Your task to perform on an android device: turn pop-ups on in chrome Image 0: 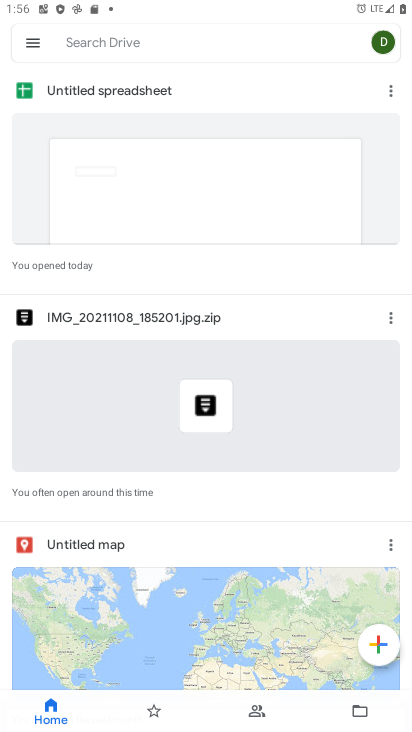
Step 0: press home button
Your task to perform on an android device: turn pop-ups on in chrome Image 1: 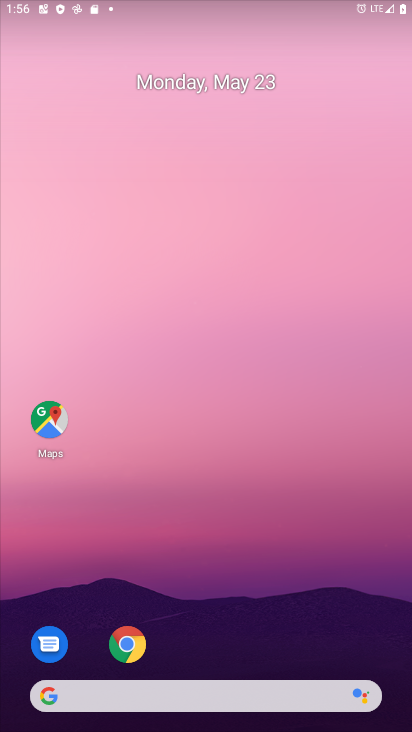
Step 1: drag from (307, 621) to (255, 135)
Your task to perform on an android device: turn pop-ups on in chrome Image 2: 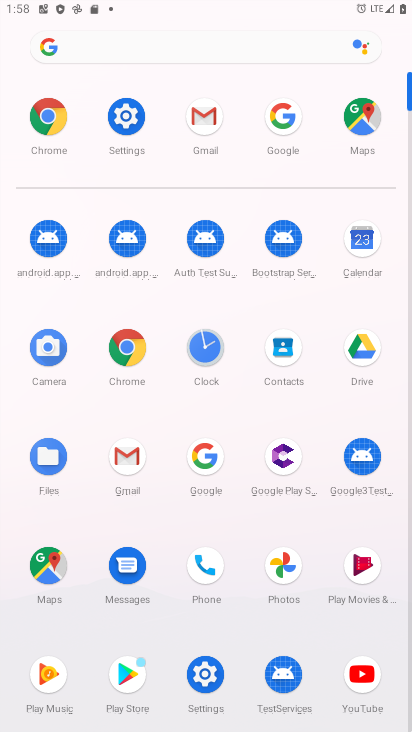
Step 2: click (31, 121)
Your task to perform on an android device: turn pop-ups on in chrome Image 3: 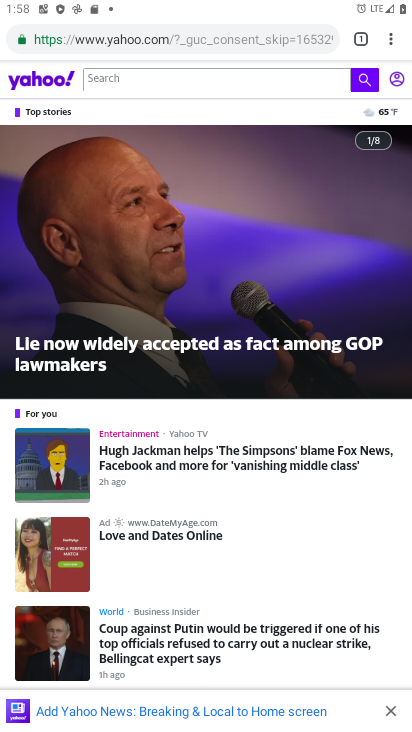
Step 3: press back button
Your task to perform on an android device: turn pop-ups on in chrome Image 4: 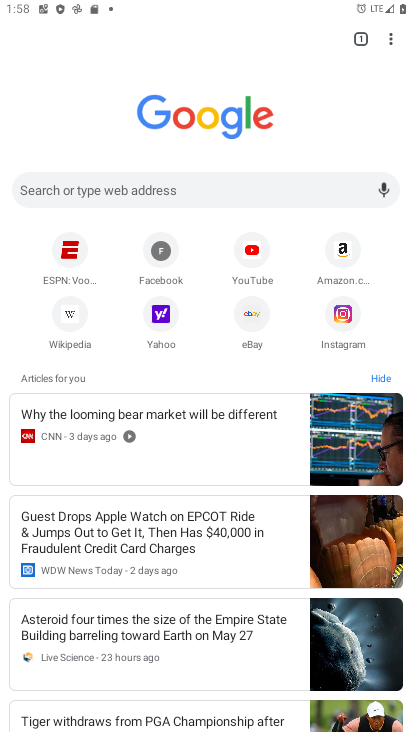
Step 4: click (389, 39)
Your task to perform on an android device: turn pop-ups on in chrome Image 5: 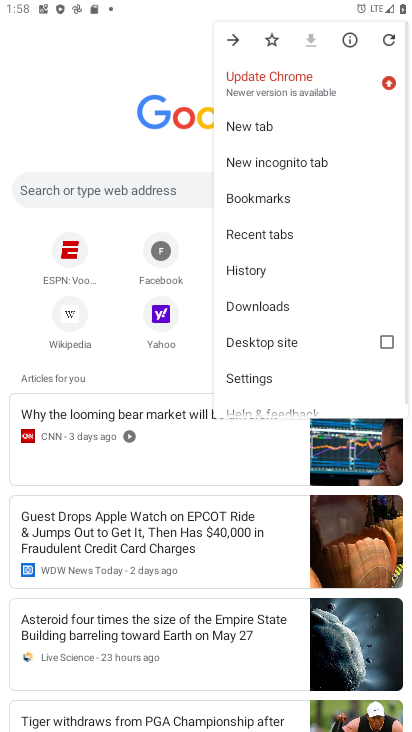
Step 5: click (318, 380)
Your task to perform on an android device: turn pop-ups on in chrome Image 6: 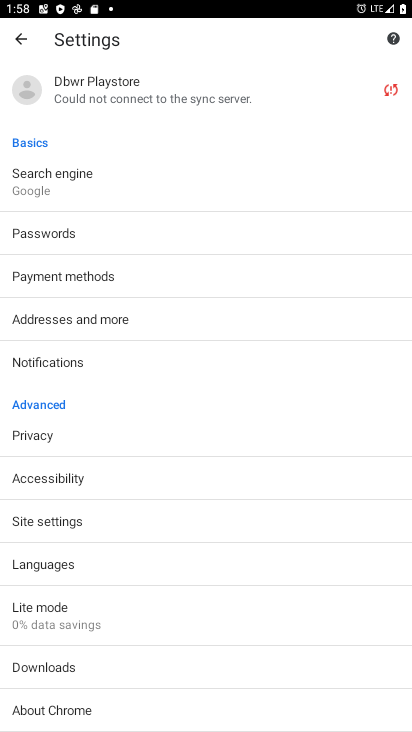
Step 6: click (121, 523)
Your task to perform on an android device: turn pop-ups on in chrome Image 7: 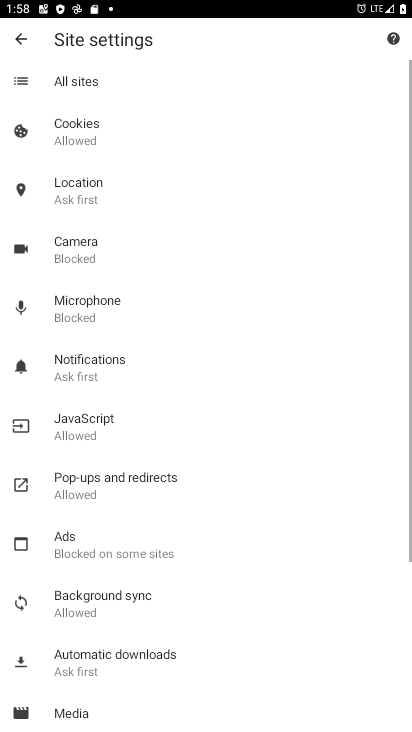
Step 7: click (112, 484)
Your task to perform on an android device: turn pop-ups on in chrome Image 8: 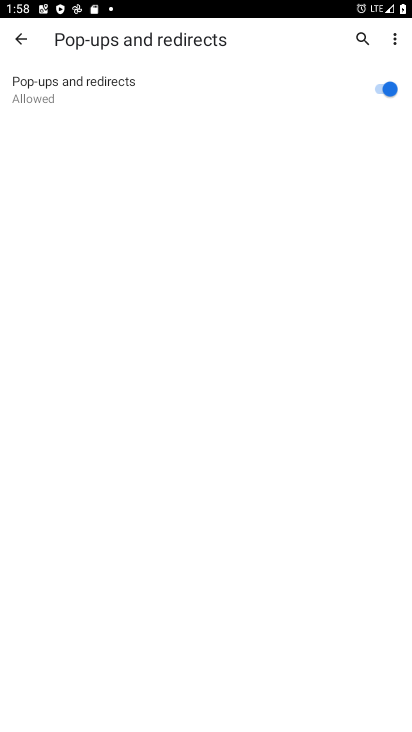
Step 8: task complete